Your task to perform on an android device: Open sound settings Image 0: 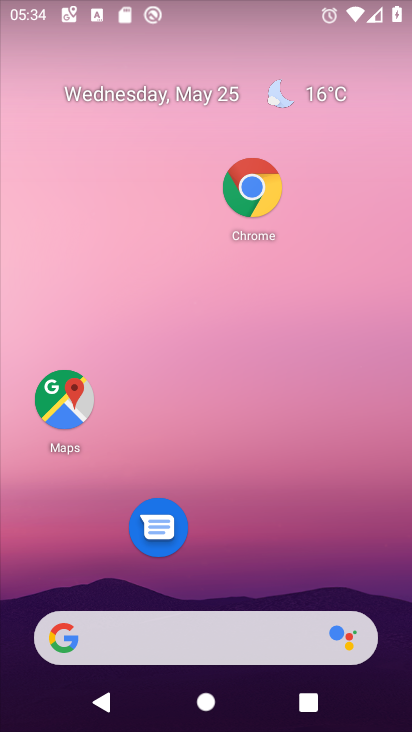
Step 0: drag from (278, 622) to (307, 64)
Your task to perform on an android device: Open sound settings Image 1: 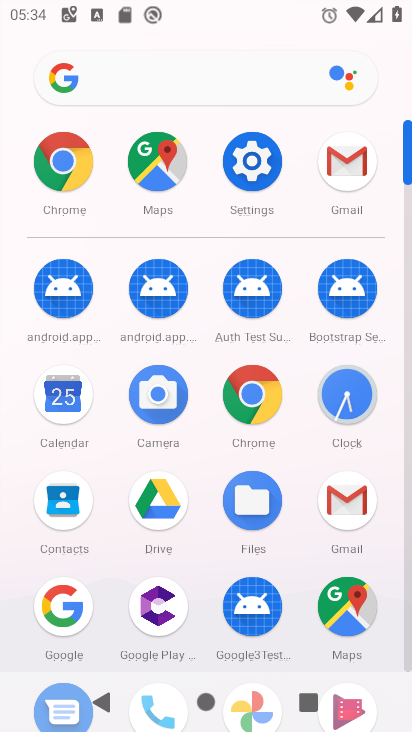
Step 1: click (250, 152)
Your task to perform on an android device: Open sound settings Image 2: 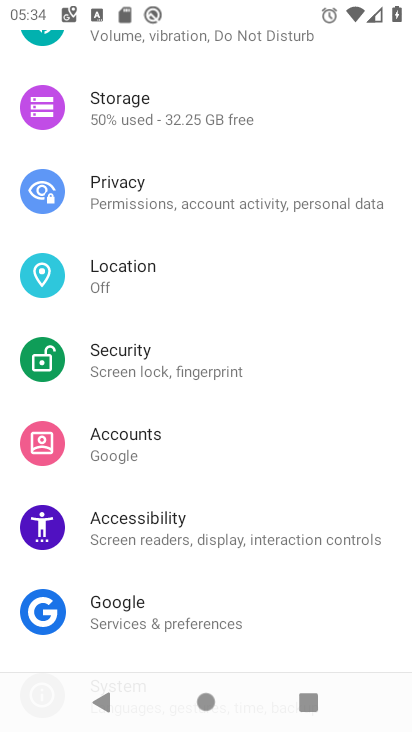
Step 2: drag from (145, 126) to (190, 596)
Your task to perform on an android device: Open sound settings Image 3: 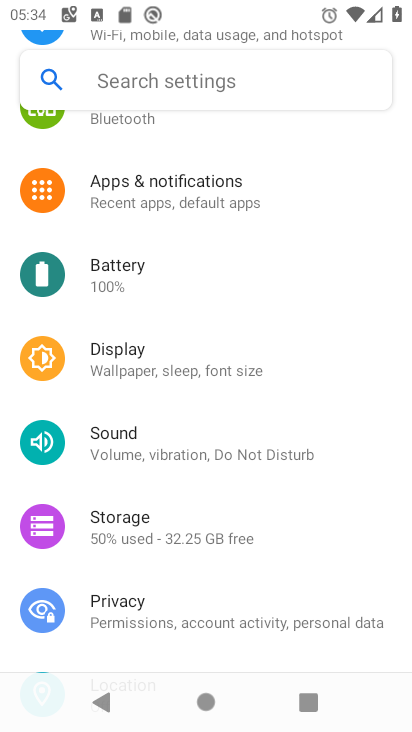
Step 3: click (152, 454)
Your task to perform on an android device: Open sound settings Image 4: 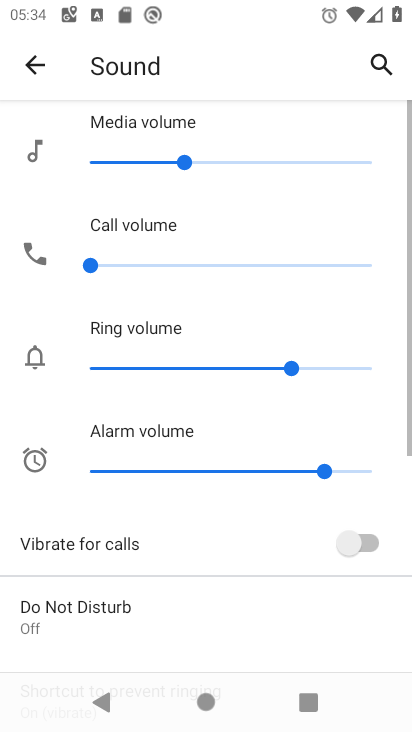
Step 4: task complete